Your task to perform on an android device: read, delete, or share a saved page in the chrome app Image 0: 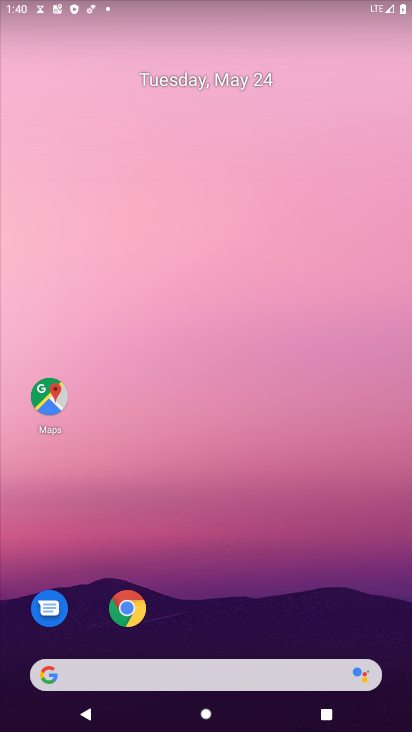
Step 0: click (136, 612)
Your task to perform on an android device: read, delete, or share a saved page in the chrome app Image 1: 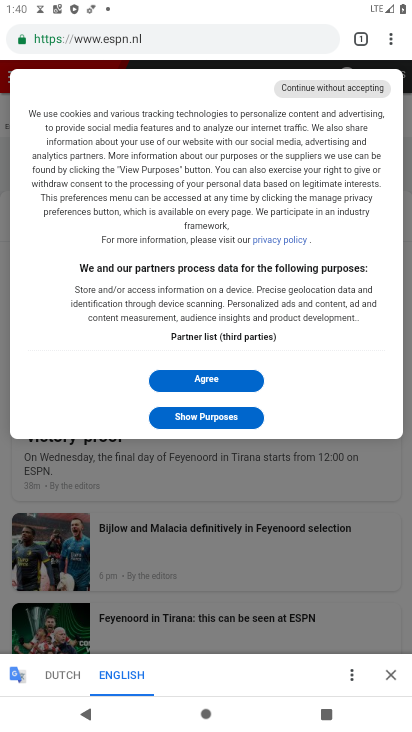
Step 1: click (394, 48)
Your task to perform on an android device: read, delete, or share a saved page in the chrome app Image 2: 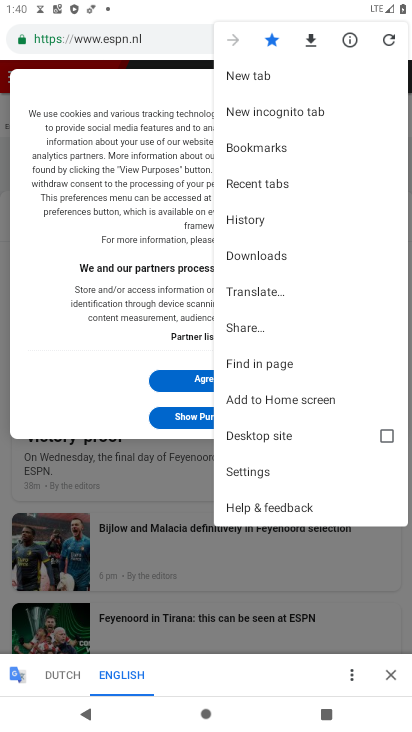
Step 2: click (291, 249)
Your task to perform on an android device: read, delete, or share a saved page in the chrome app Image 3: 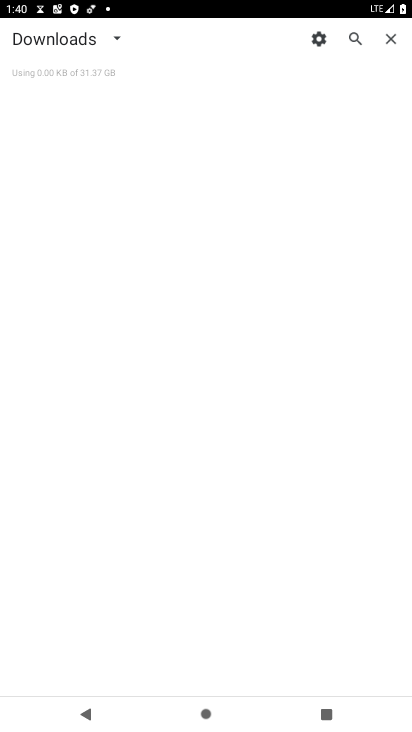
Step 3: click (123, 37)
Your task to perform on an android device: read, delete, or share a saved page in the chrome app Image 4: 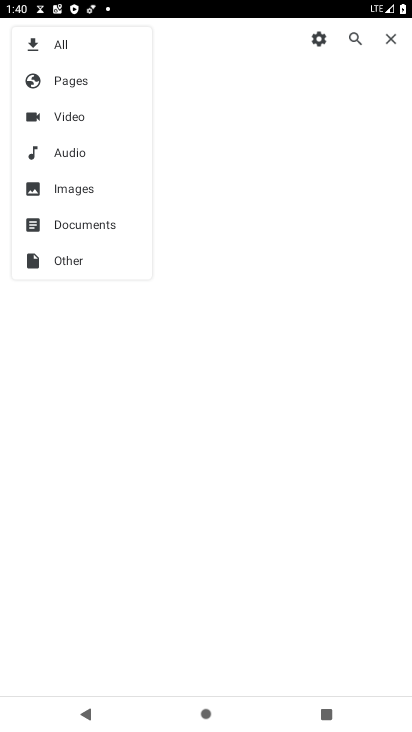
Step 4: click (89, 70)
Your task to perform on an android device: read, delete, or share a saved page in the chrome app Image 5: 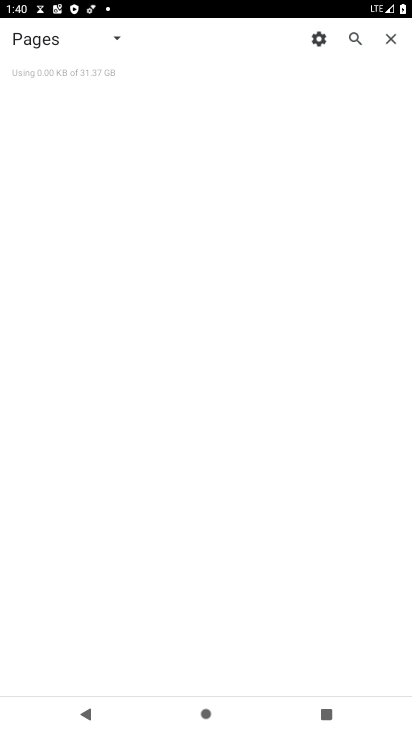
Step 5: task complete